Your task to perform on an android device: Turn off the flashlight Image 0: 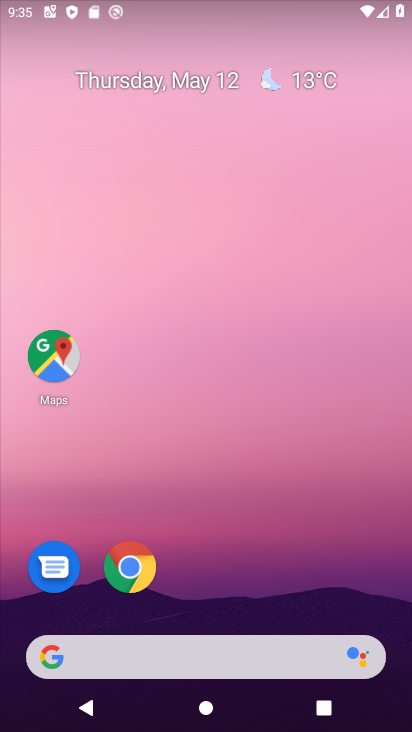
Step 0: drag from (227, 460) to (235, 198)
Your task to perform on an android device: Turn off the flashlight Image 1: 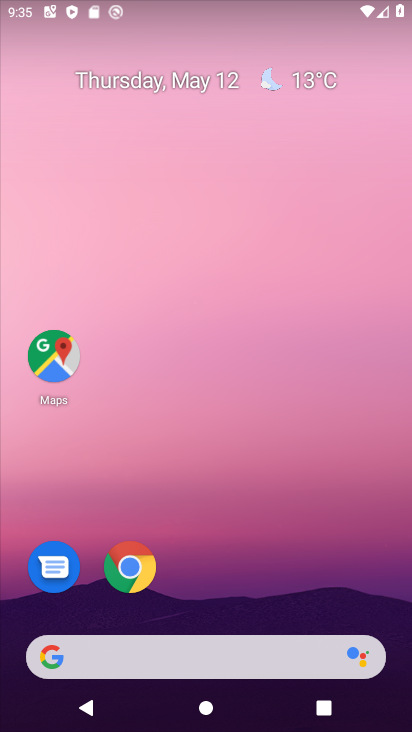
Step 1: drag from (232, 545) to (225, 120)
Your task to perform on an android device: Turn off the flashlight Image 2: 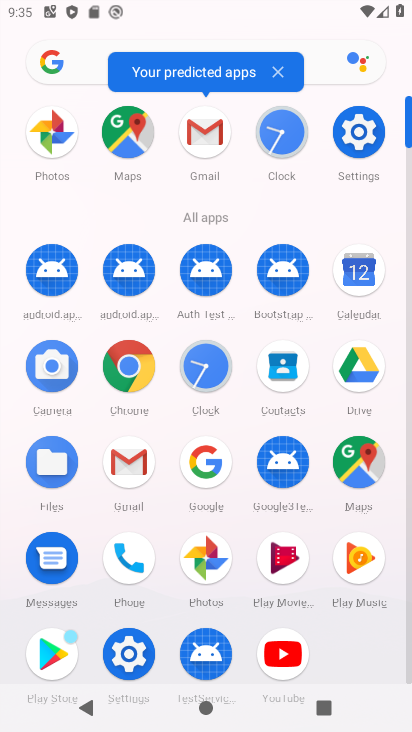
Step 2: click (332, 127)
Your task to perform on an android device: Turn off the flashlight Image 3: 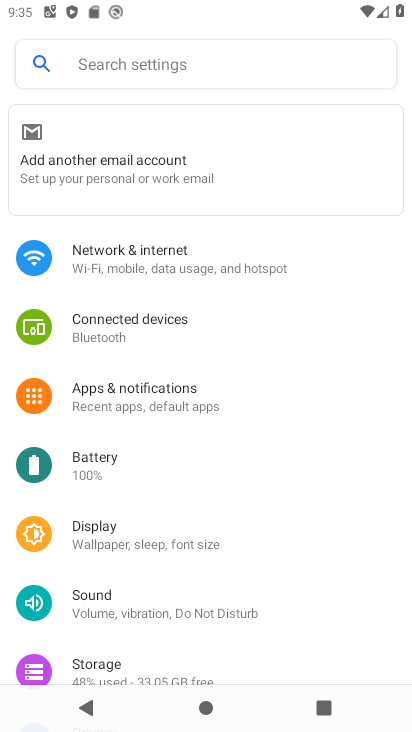
Step 3: click (159, 58)
Your task to perform on an android device: Turn off the flashlight Image 4: 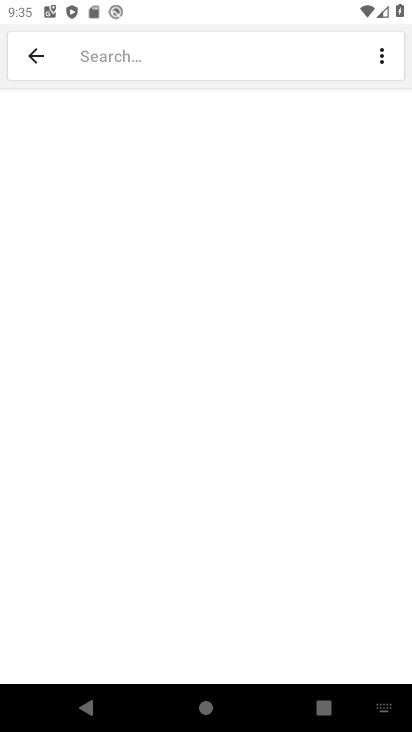
Step 4: press back button
Your task to perform on an android device: Turn off the flashlight Image 5: 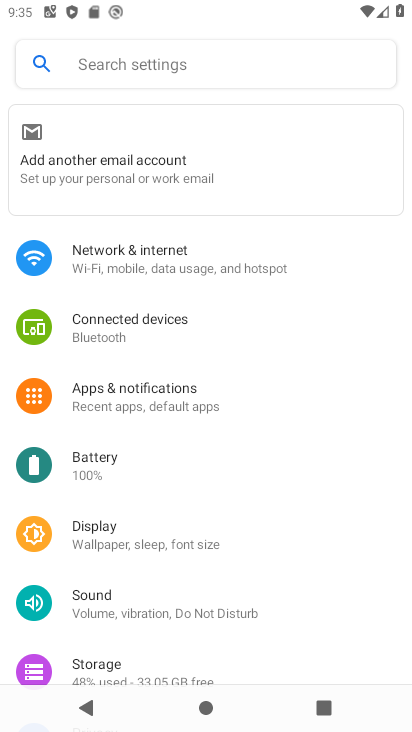
Step 5: click (174, 68)
Your task to perform on an android device: Turn off the flashlight Image 6: 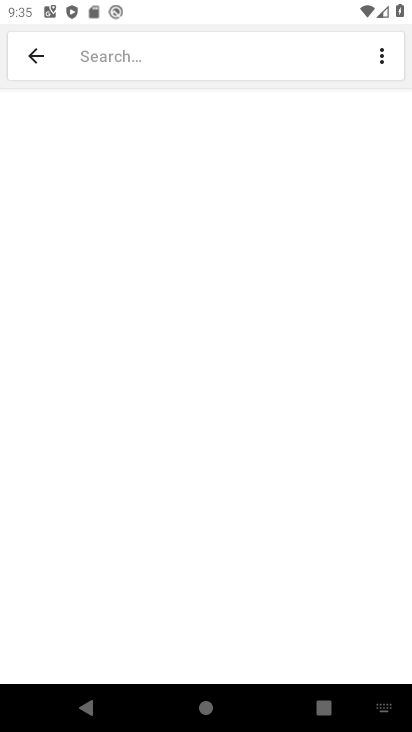
Step 6: type "flashlight"
Your task to perform on an android device: Turn off the flashlight Image 7: 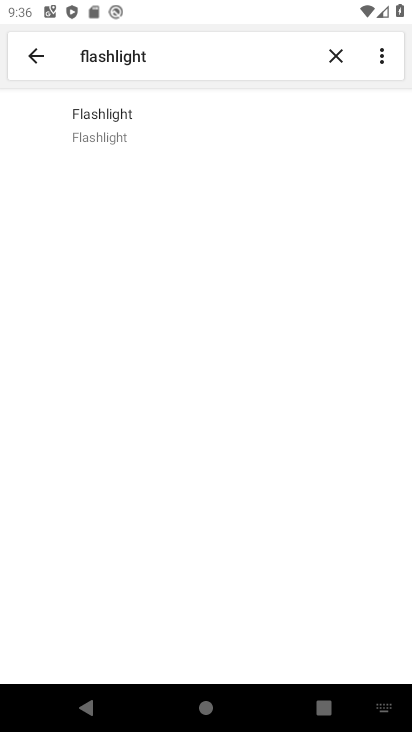
Step 7: click (209, 132)
Your task to perform on an android device: Turn off the flashlight Image 8: 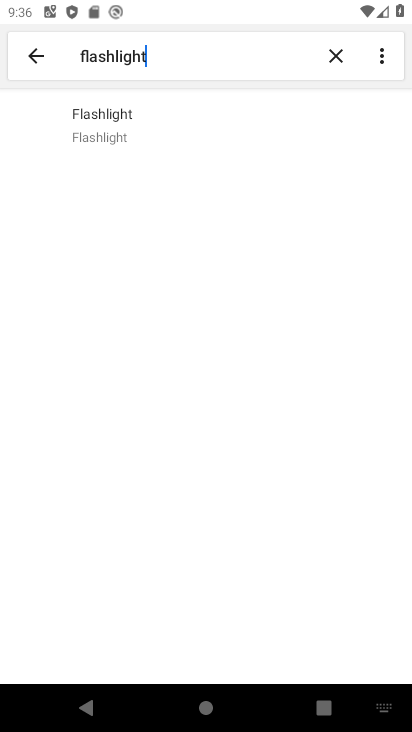
Step 8: task complete